Your task to perform on an android device: Open calendar and show me the first week of next month Image 0: 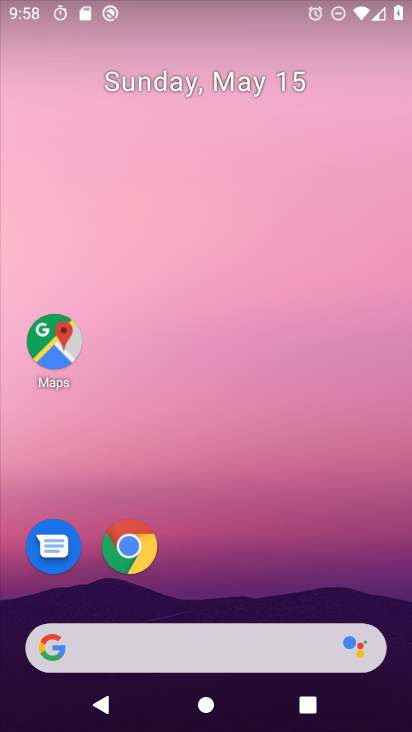
Step 0: drag from (340, 552) to (287, 90)
Your task to perform on an android device: Open calendar and show me the first week of next month Image 1: 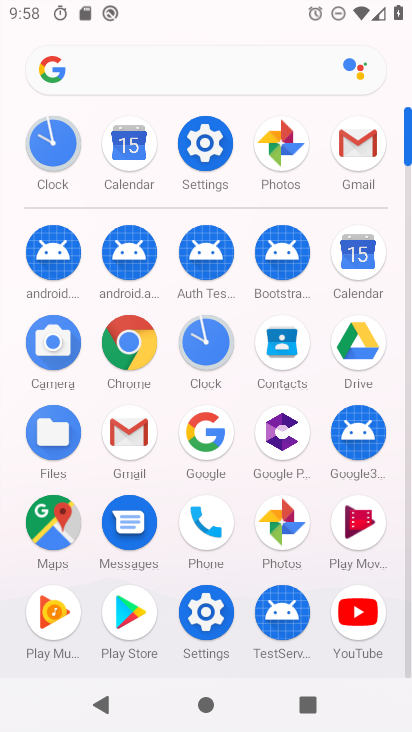
Step 1: click (142, 145)
Your task to perform on an android device: Open calendar and show me the first week of next month Image 2: 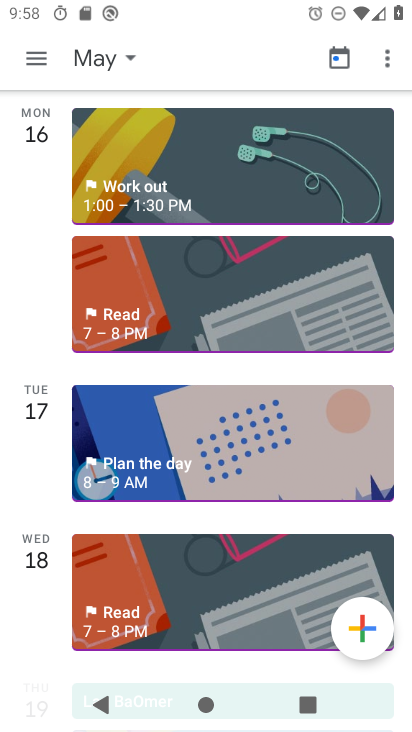
Step 2: click (35, 51)
Your task to perform on an android device: Open calendar and show me the first week of next month Image 3: 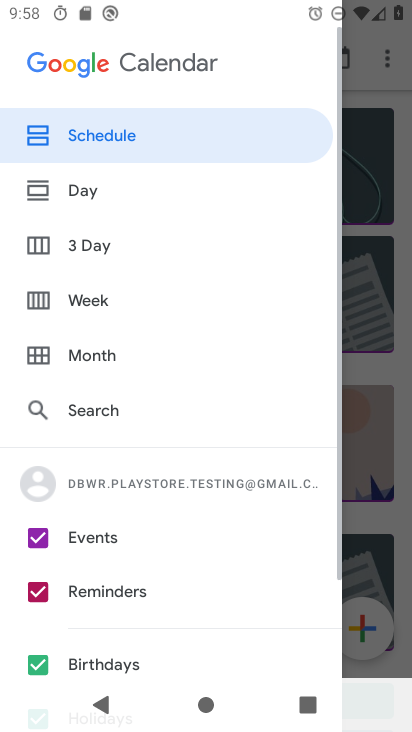
Step 3: click (71, 283)
Your task to perform on an android device: Open calendar and show me the first week of next month Image 4: 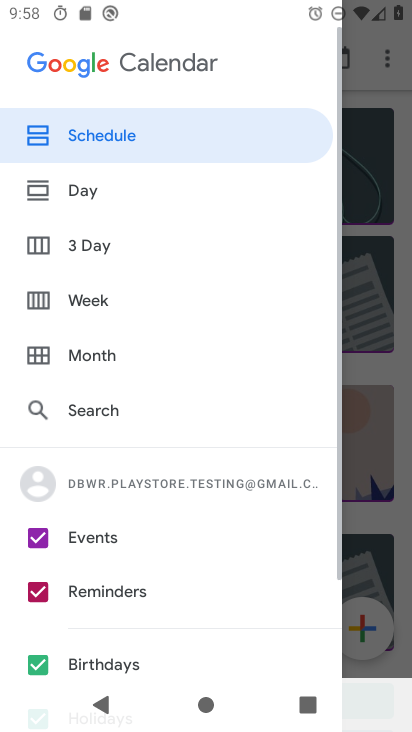
Step 4: click (74, 298)
Your task to perform on an android device: Open calendar and show me the first week of next month Image 5: 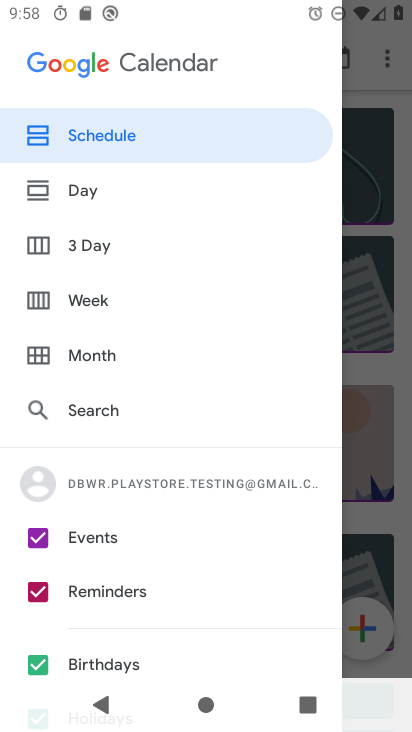
Step 5: click (38, 298)
Your task to perform on an android device: Open calendar and show me the first week of next month Image 6: 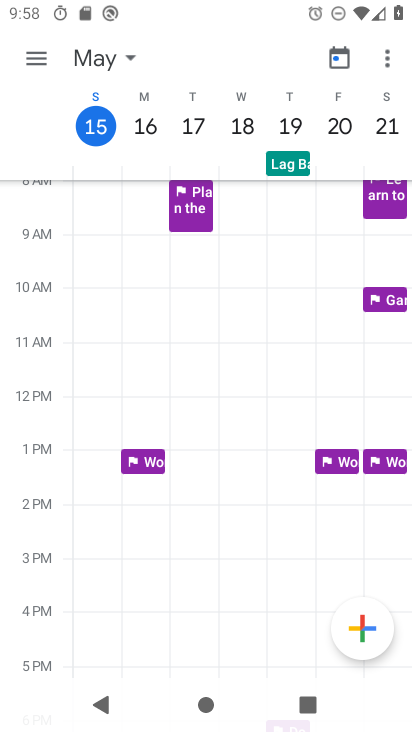
Step 6: task complete